Your task to perform on an android device: Open settings Image 0: 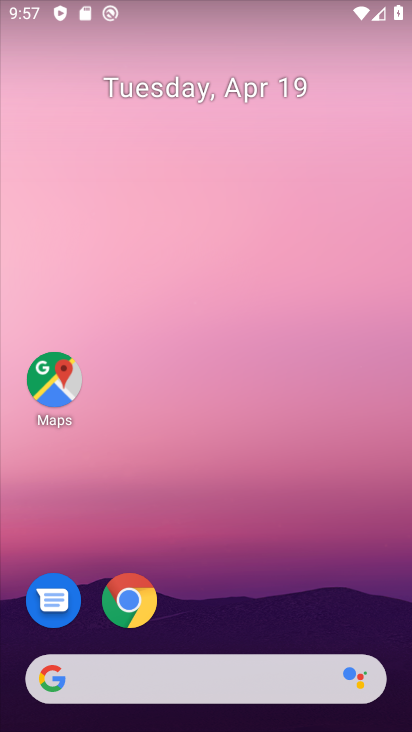
Step 0: drag from (196, 609) to (377, 23)
Your task to perform on an android device: Open settings Image 1: 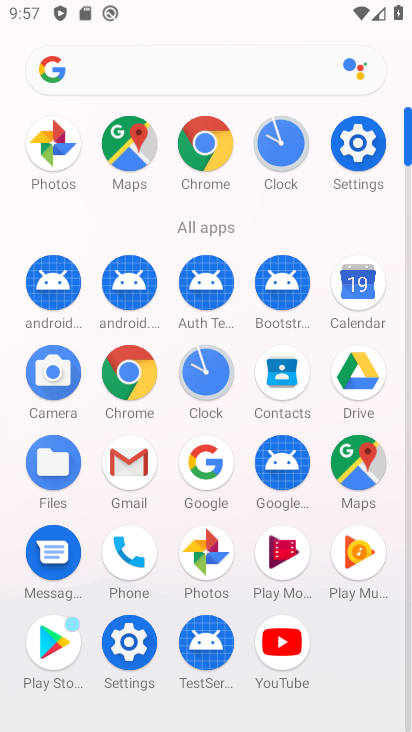
Step 1: click (376, 151)
Your task to perform on an android device: Open settings Image 2: 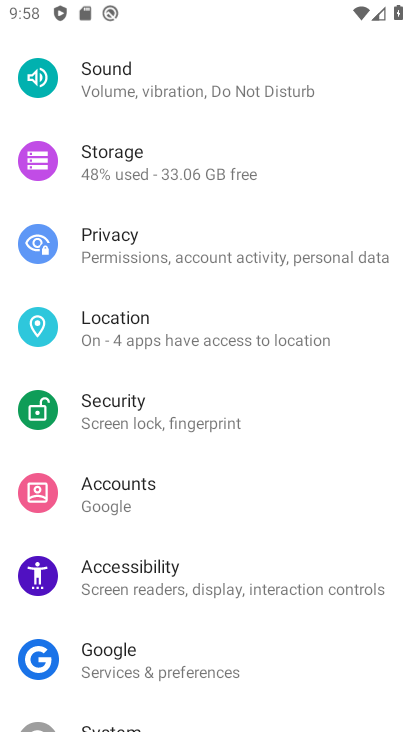
Step 2: task complete